Your task to perform on an android device: Open Wikipedia Image 0: 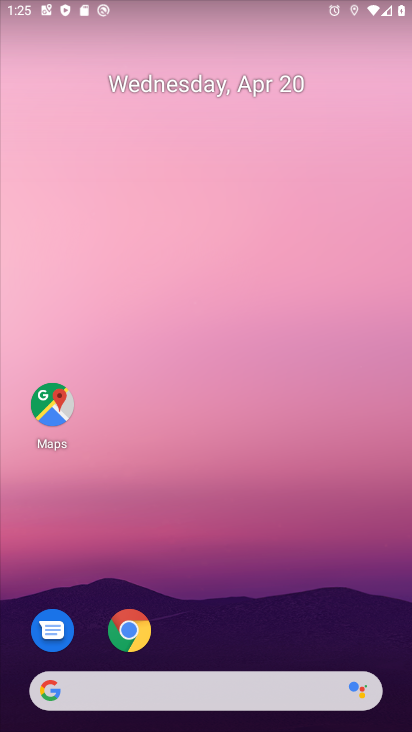
Step 0: press home button
Your task to perform on an android device: Open Wikipedia Image 1: 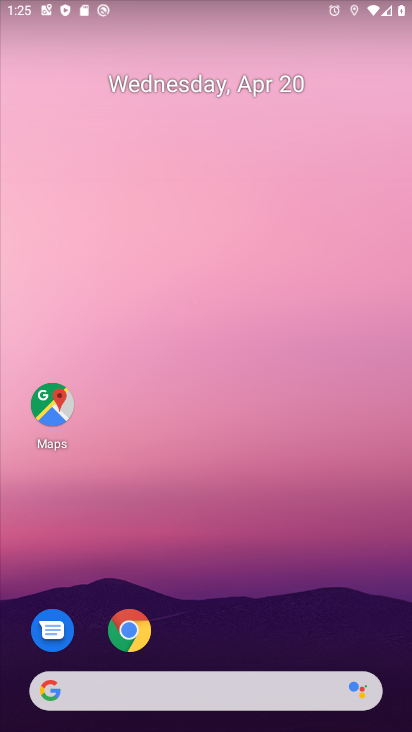
Step 1: click (127, 627)
Your task to perform on an android device: Open Wikipedia Image 2: 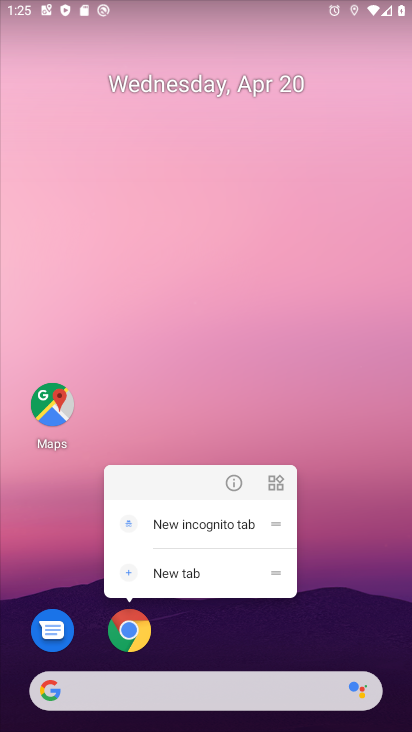
Step 2: click (127, 627)
Your task to perform on an android device: Open Wikipedia Image 3: 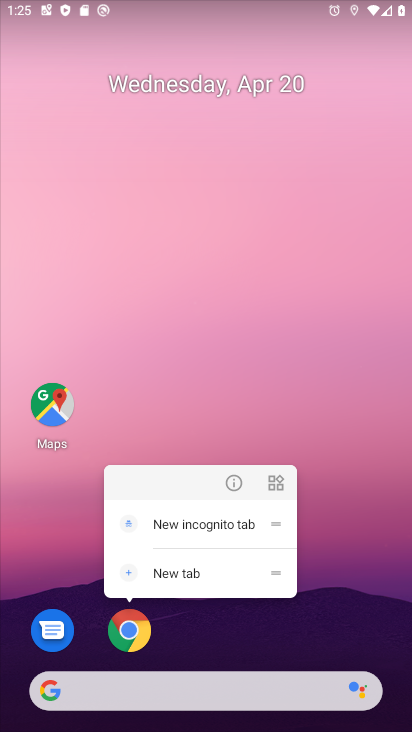
Step 3: click (125, 626)
Your task to perform on an android device: Open Wikipedia Image 4: 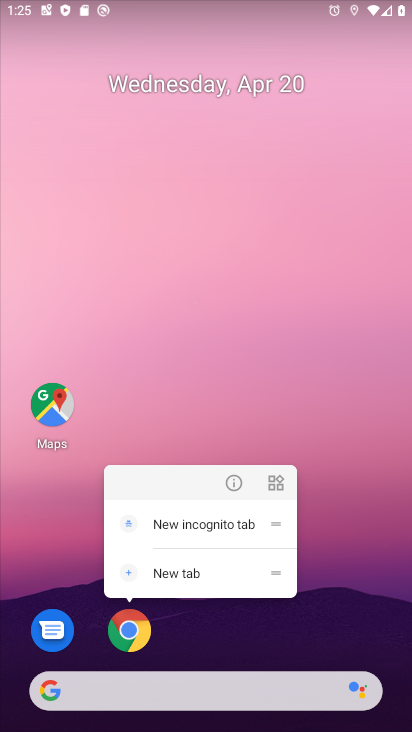
Step 4: click (126, 621)
Your task to perform on an android device: Open Wikipedia Image 5: 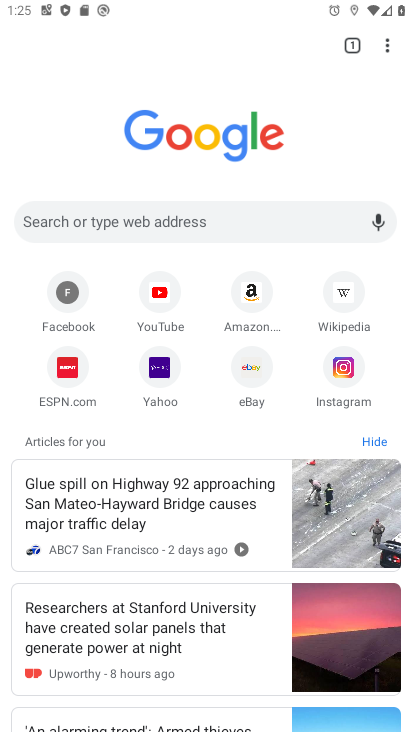
Step 5: click (334, 288)
Your task to perform on an android device: Open Wikipedia Image 6: 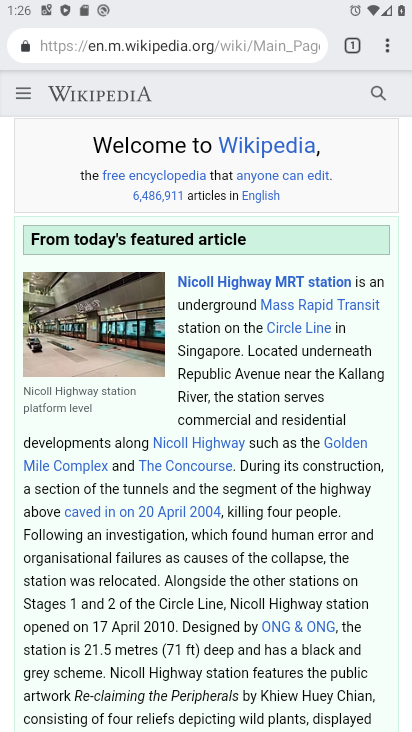
Step 6: task complete